Your task to perform on an android device: toggle translation in the chrome app Image 0: 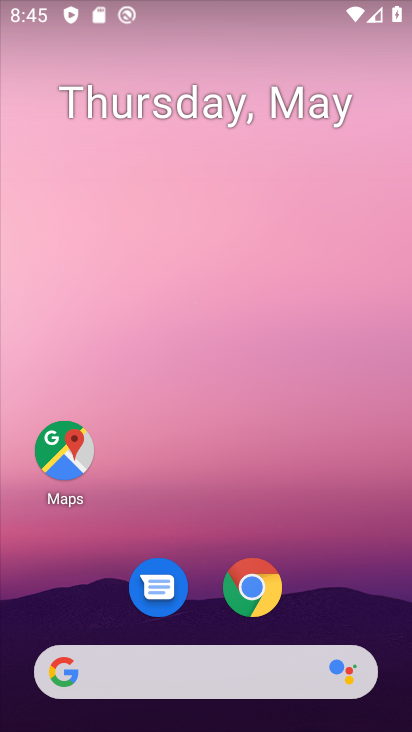
Step 0: drag from (368, 554) to (373, 58)
Your task to perform on an android device: toggle translation in the chrome app Image 1: 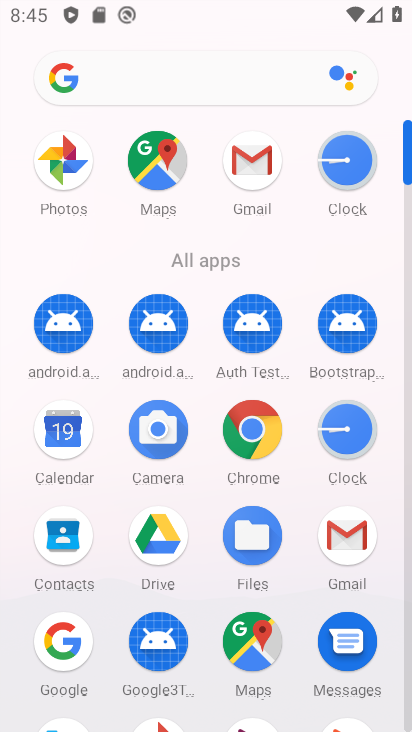
Step 1: click (243, 446)
Your task to perform on an android device: toggle translation in the chrome app Image 2: 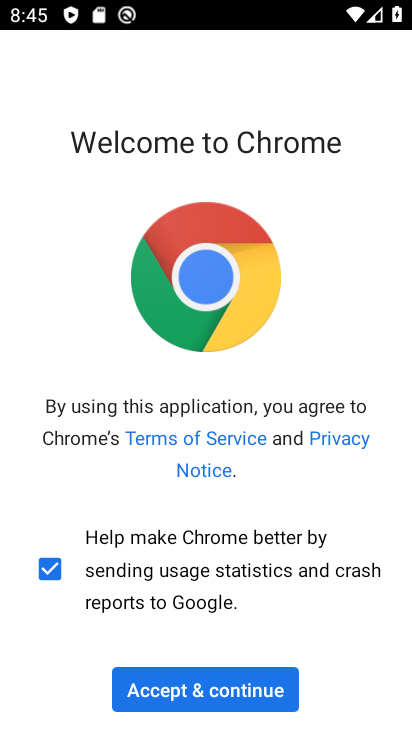
Step 2: click (221, 690)
Your task to perform on an android device: toggle translation in the chrome app Image 3: 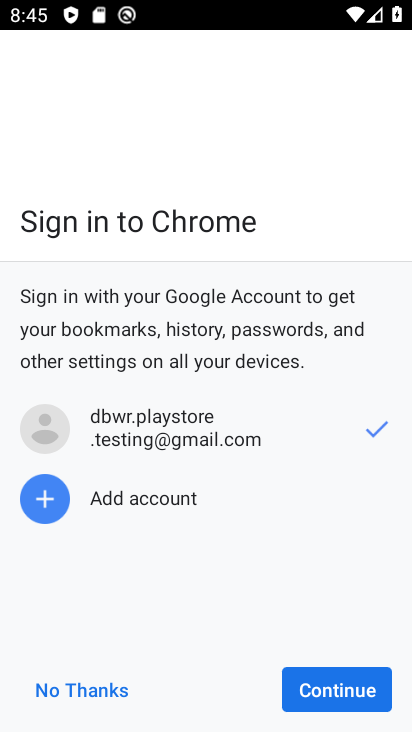
Step 3: click (69, 693)
Your task to perform on an android device: toggle translation in the chrome app Image 4: 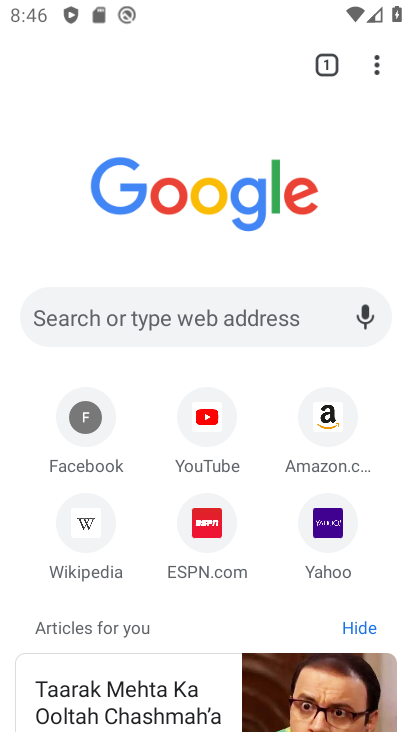
Step 4: drag from (396, 606) to (410, 271)
Your task to perform on an android device: toggle translation in the chrome app Image 5: 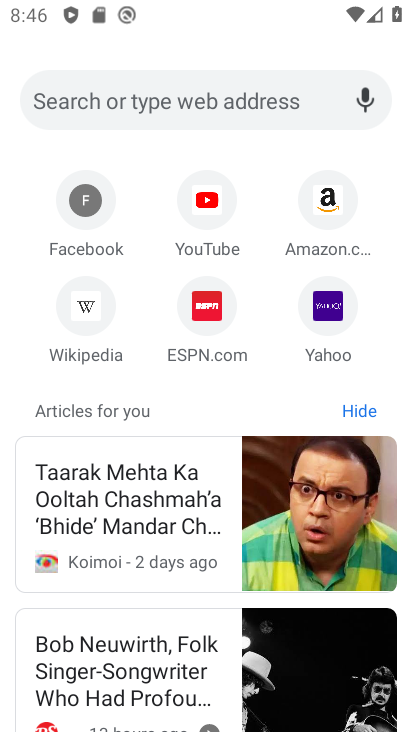
Step 5: drag from (399, 258) to (392, 618)
Your task to perform on an android device: toggle translation in the chrome app Image 6: 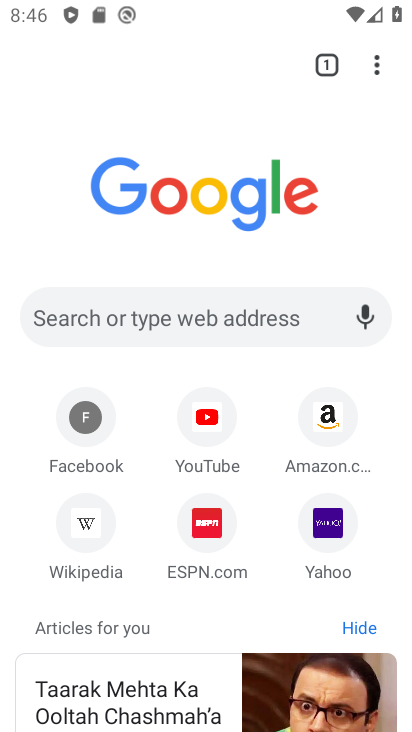
Step 6: drag from (375, 67) to (182, 529)
Your task to perform on an android device: toggle translation in the chrome app Image 7: 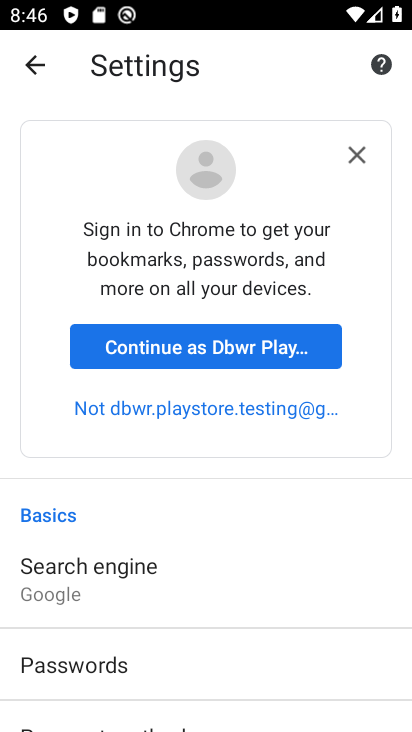
Step 7: drag from (253, 656) to (297, 235)
Your task to perform on an android device: toggle translation in the chrome app Image 8: 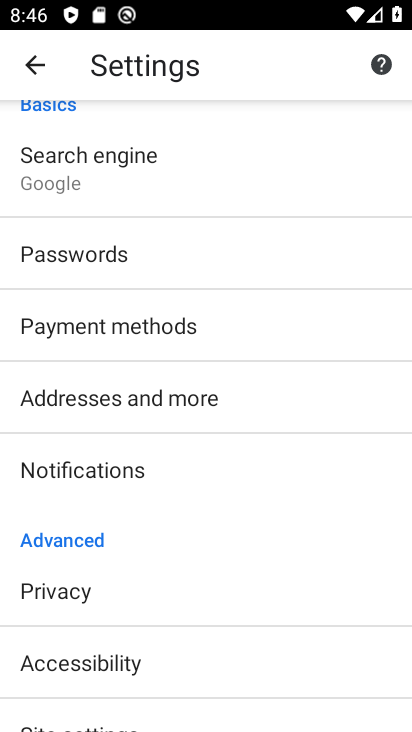
Step 8: drag from (139, 649) to (187, 265)
Your task to perform on an android device: toggle translation in the chrome app Image 9: 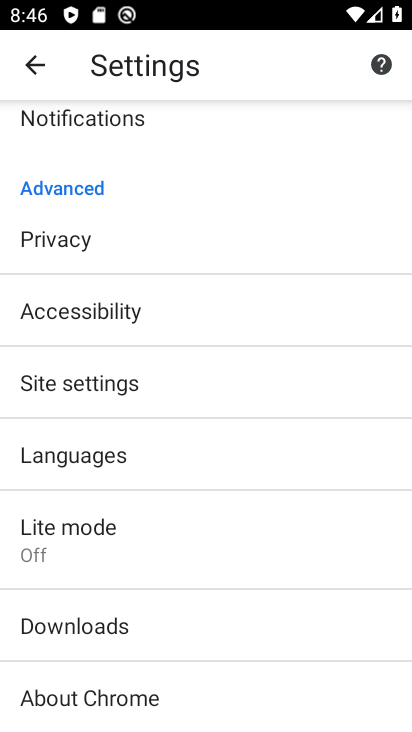
Step 9: click (159, 438)
Your task to perform on an android device: toggle translation in the chrome app Image 10: 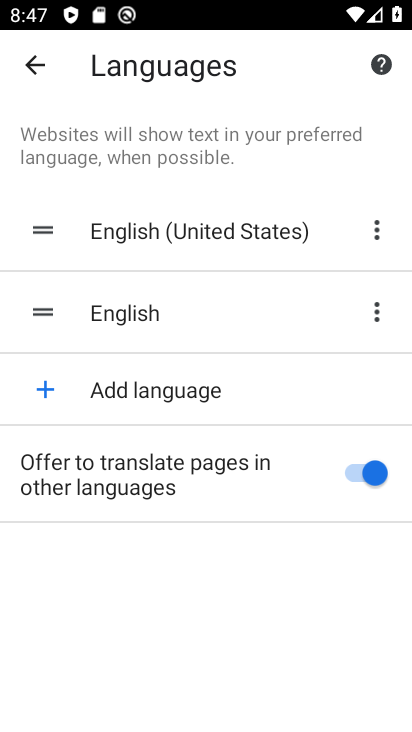
Step 10: click (364, 490)
Your task to perform on an android device: toggle translation in the chrome app Image 11: 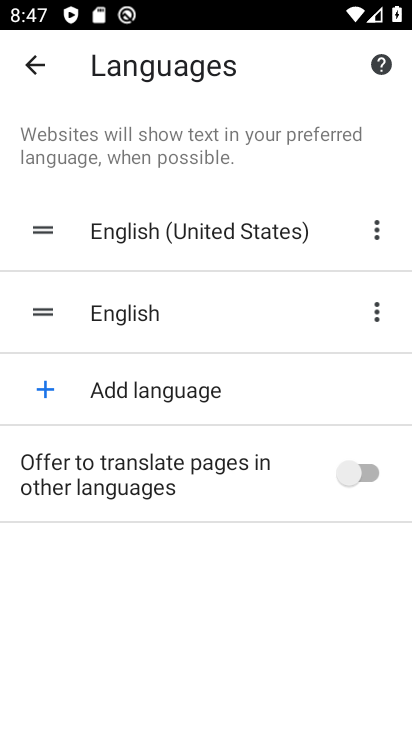
Step 11: task complete